Your task to perform on an android device: turn on the 24-hour format for clock Image 0: 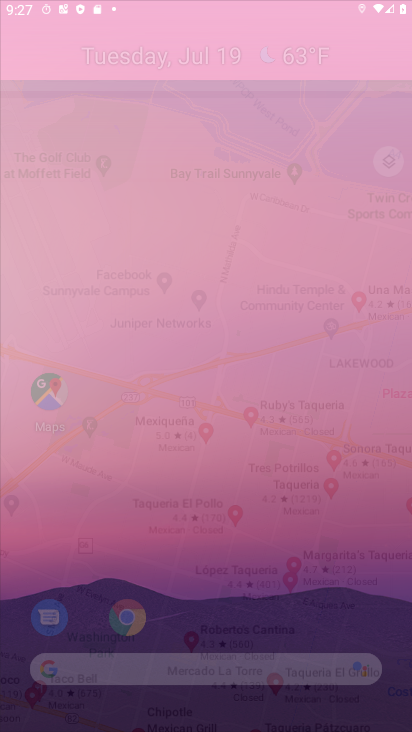
Step 0: click (320, 275)
Your task to perform on an android device: turn on the 24-hour format for clock Image 1: 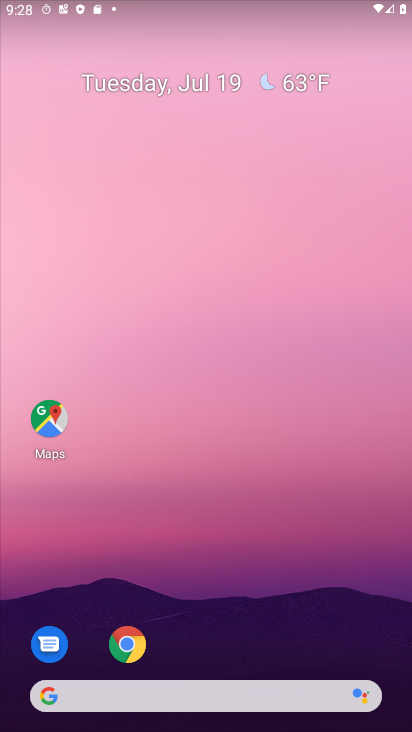
Step 1: drag from (224, 688) to (213, 233)
Your task to perform on an android device: turn on the 24-hour format for clock Image 2: 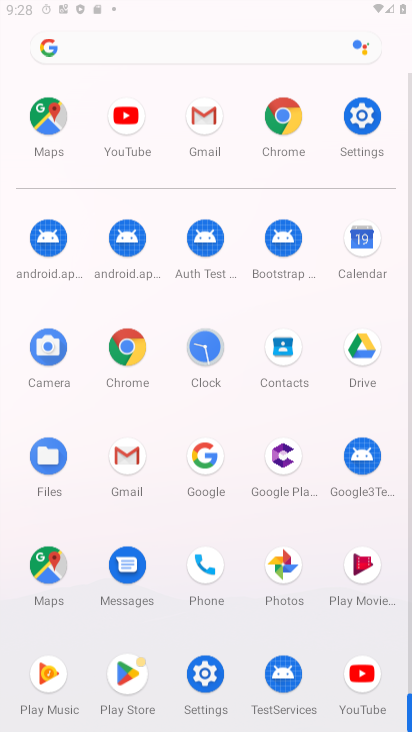
Step 2: drag from (222, 428) to (218, 73)
Your task to perform on an android device: turn on the 24-hour format for clock Image 3: 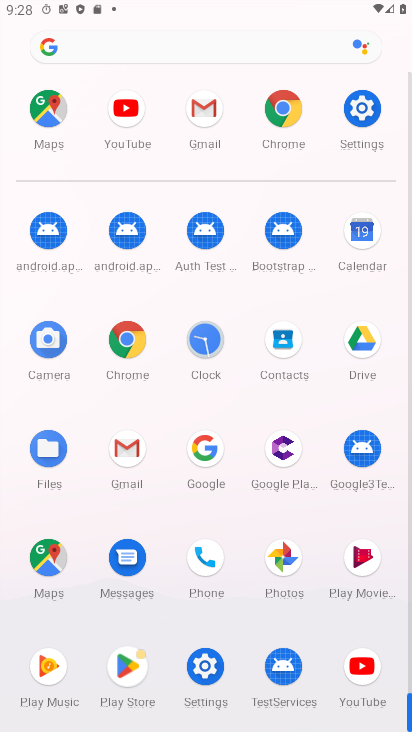
Step 3: click (195, 351)
Your task to perform on an android device: turn on the 24-hour format for clock Image 4: 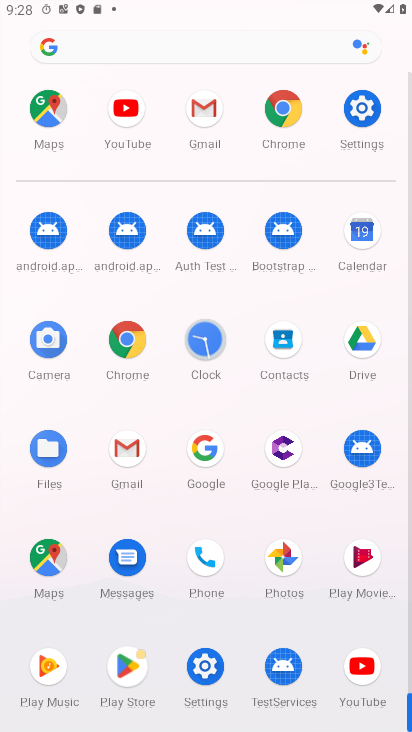
Step 4: click (214, 338)
Your task to perform on an android device: turn on the 24-hour format for clock Image 5: 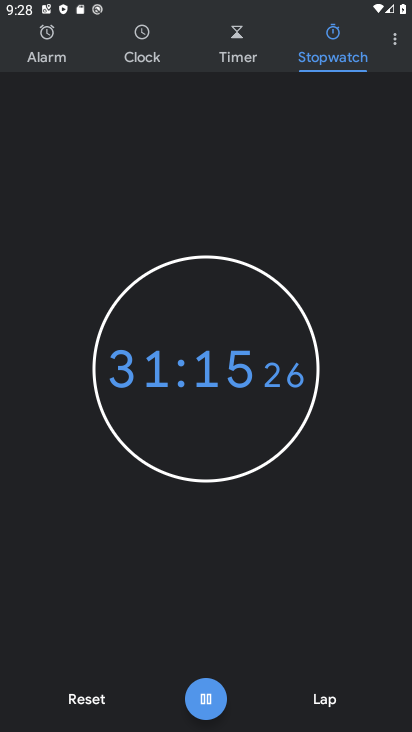
Step 5: click (397, 34)
Your task to perform on an android device: turn on the 24-hour format for clock Image 6: 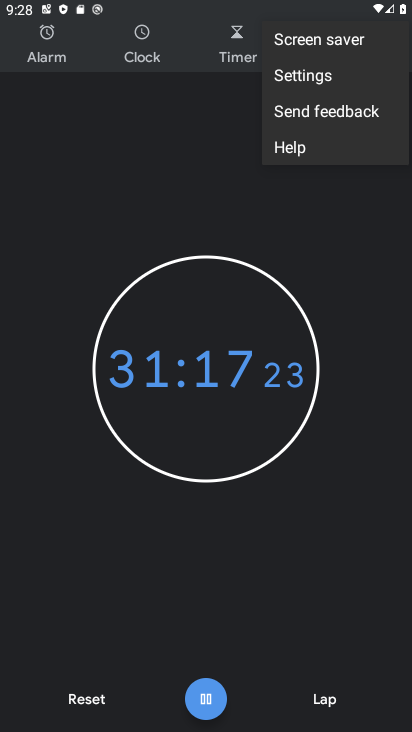
Step 6: click (326, 77)
Your task to perform on an android device: turn on the 24-hour format for clock Image 7: 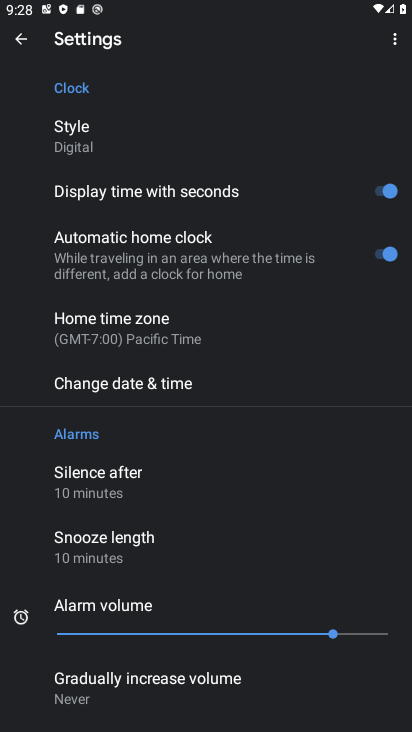
Step 7: click (114, 389)
Your task to perform on an android device: turn on the 24-hour format for clock Image 8: 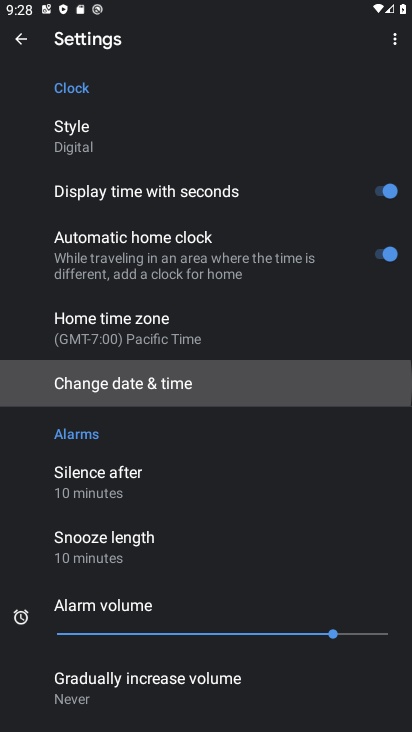
Step 8: click (114, 389)
Your task to perform on an android device: turn on the 24-hour format for clock Image 9: 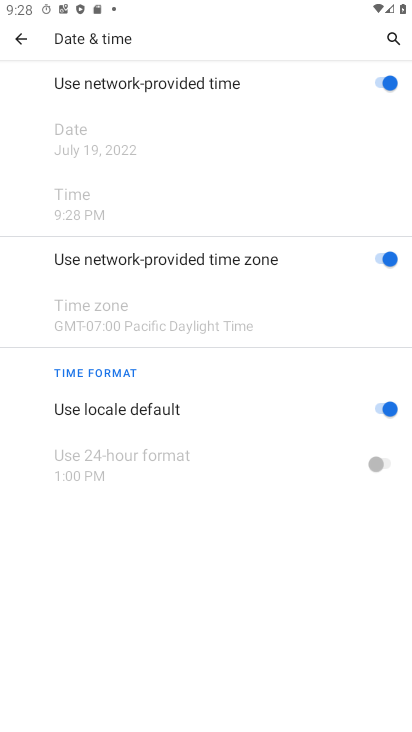
Step 9: click (390, 402)
Your task to perform on an android device: turn on the 24-hour format for clock Image 10: 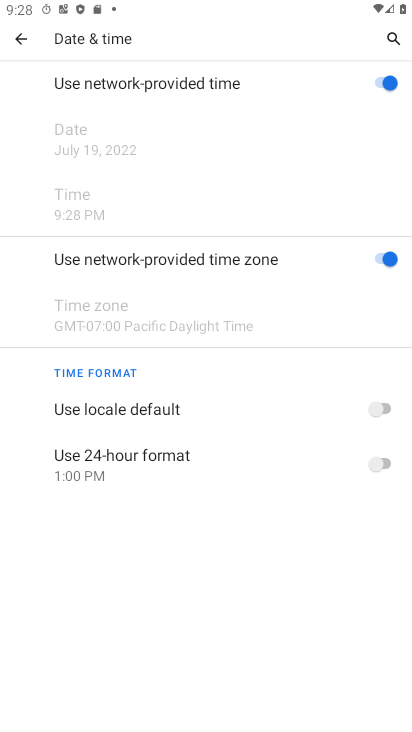
Step 10: click (383, 466)
Your task to perform on an android device: turn on the 24-hour format for clock Image 11: 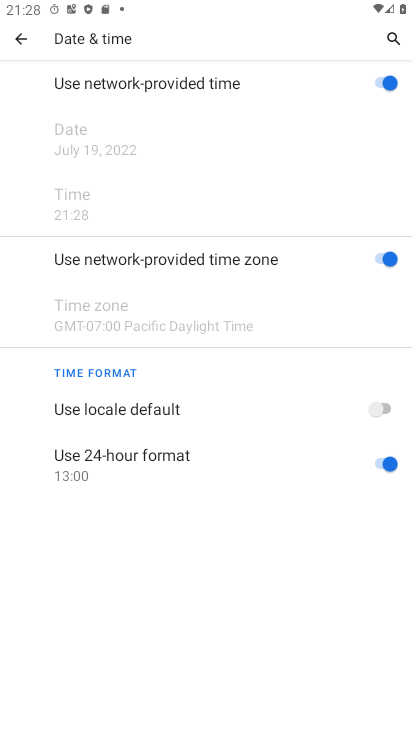
Step 11: task complete